Your task to perform on an android device: Go to sound settings Image 0: 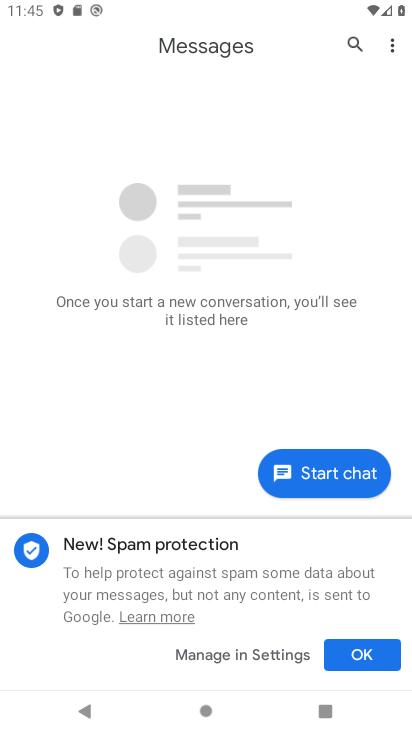
Step 0: press home button
Your task to perform on an android device: Go to sound settings Image 1: 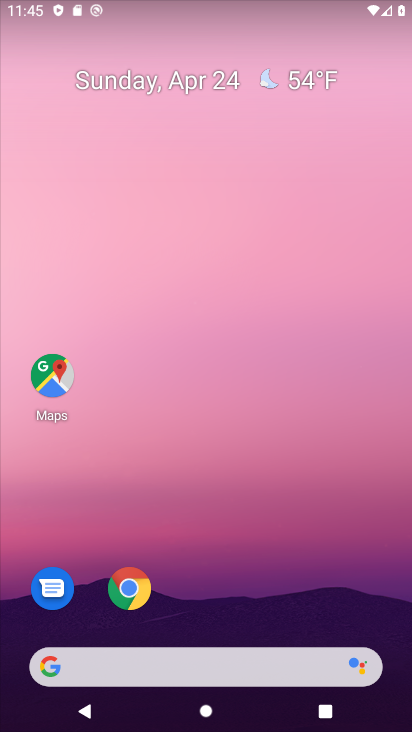
Step 1: drag from (207, 634) to (355, 40)
Your task to perform on an android device: Go to sound settings Image 2: 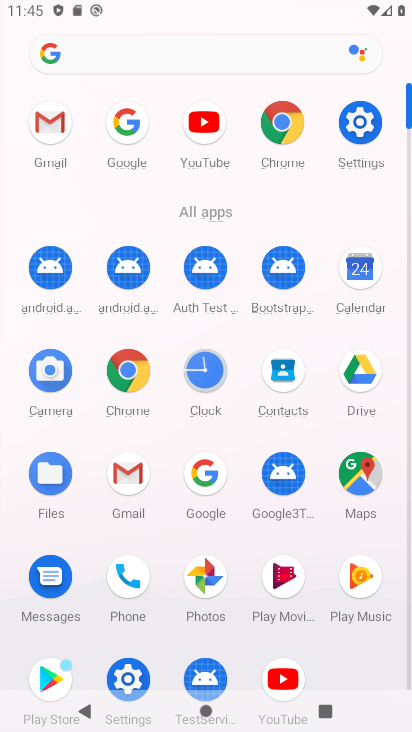
Step 2: click (131, 662)
Your task to perform on an android device: Go to sound settings Image 3: 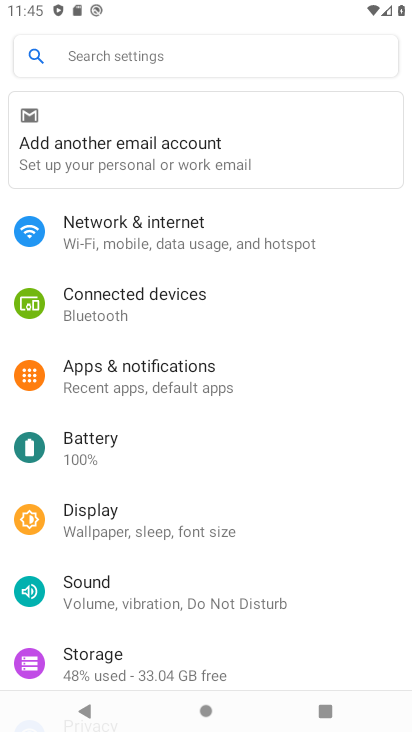
Step 3: click (77, 581)
Your task to perform on an android device: Go to sound settings Image 4: 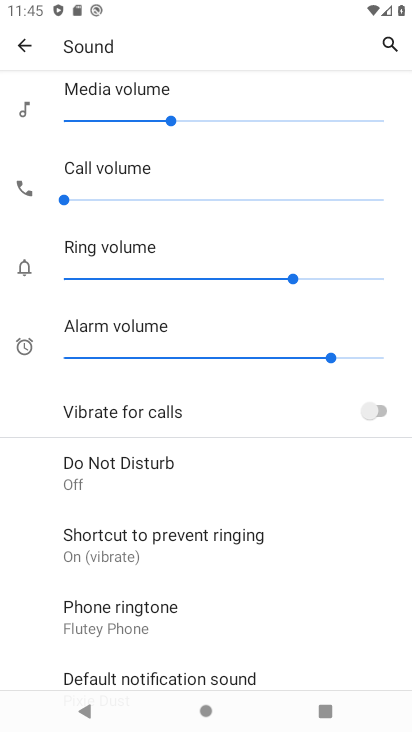
Step 4: task complete